Your task to perform on an android device: Clear the cart on ebay. Image 0: 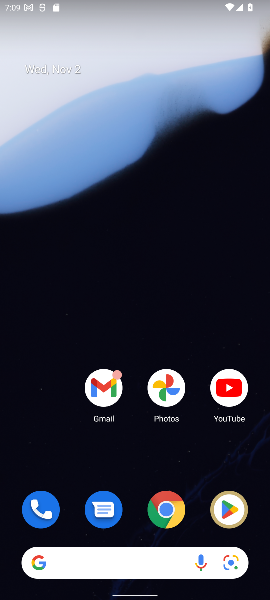
Step 0: click (149, 558)
Your task to perform on an android device: Clear the cart on ebay. Image 1: 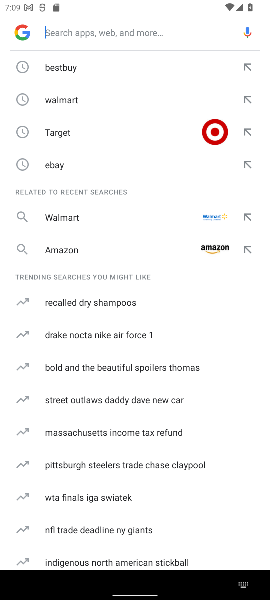
Step 1: click (57, 165)
Your task to perform on an android device: Clear the cart on ebay. Image 2: 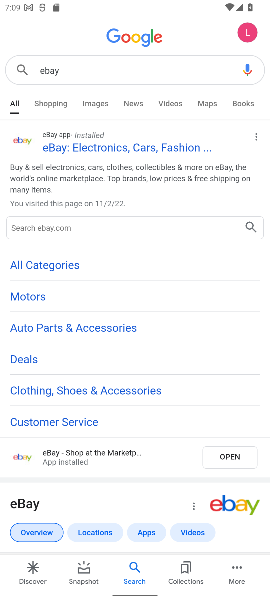
Step 2: drag from (190, 401) to (169, 264)
Your task to perform on an android device: Clear the cart on ebay. Image 3: 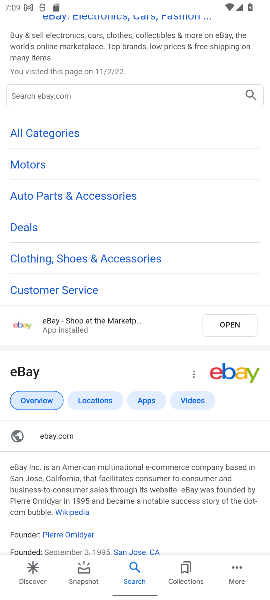
Step 3: click (43, 434)
Your task to perform on an android device: Clear the cart on ebay. Image 4: 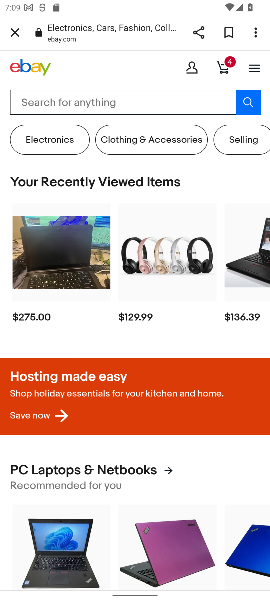
Step 4: click (232, 63)
Your task to perform on an android device: Clear the cart on ebay. Image 5: 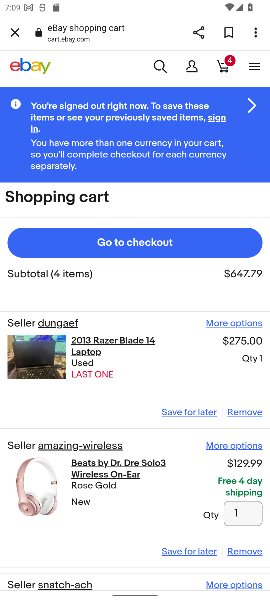
Step 5: click (246, 550)
Your task to perform on an android device: Clear the cart on ebay. Image 6: 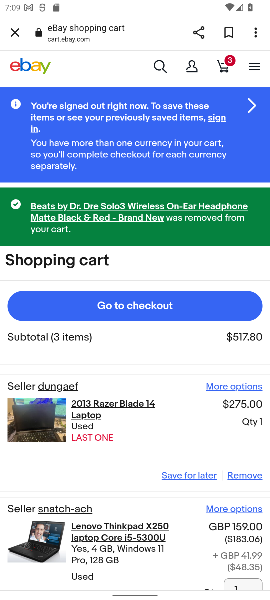
Step 6: click (235, 474)
Your task to perform on an android device: Clear the cart on ebay. Image 7: 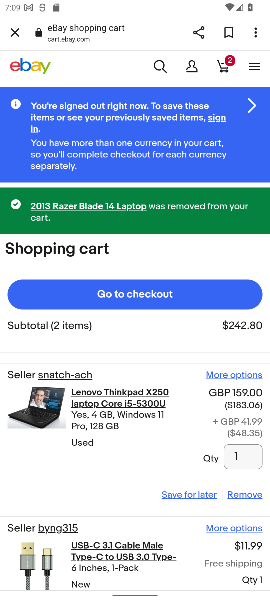
Step 7: click (243, 495)
Your task to perform on an android device: Clear the cart on ebay. Image 8: 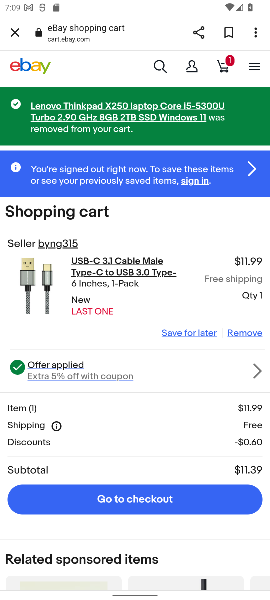
Step 8: click (243, 328)
Your task to perform on an android device: Clear the cart on ebay. Image 9: 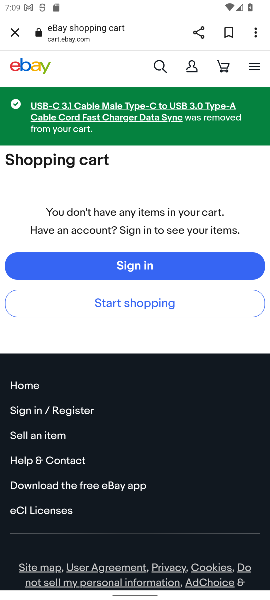
Step 9: task complete